Your task to perform on an android device: Open maps Image 0: 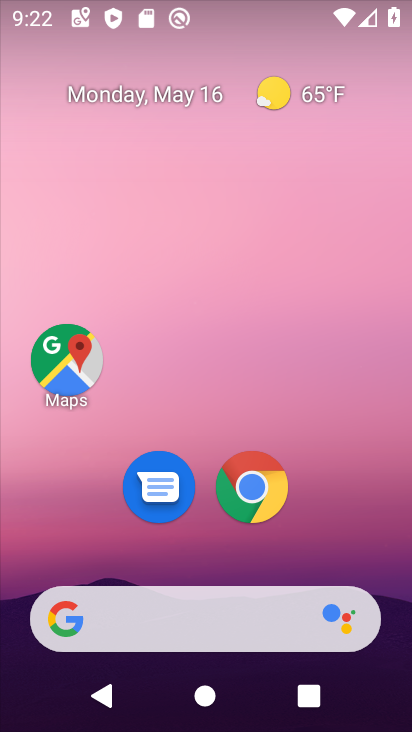
Step 0: drag from (376, 556) to (351, 191)
Your task to perform on an android device: Open maps Image 1: 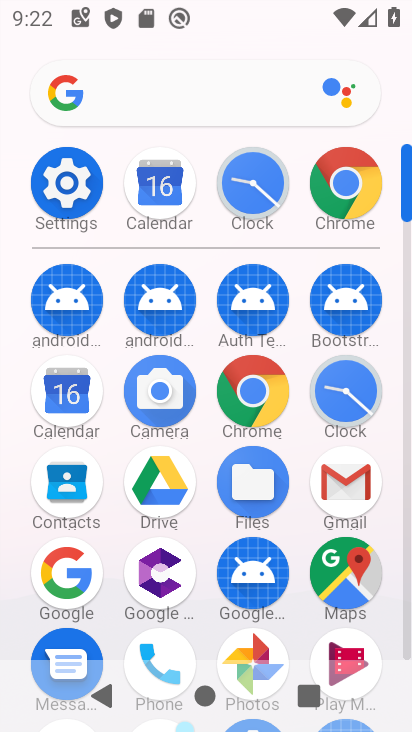
Step 1: click (369, 584)
Your task to perform on an android device: Open maps Image 2: 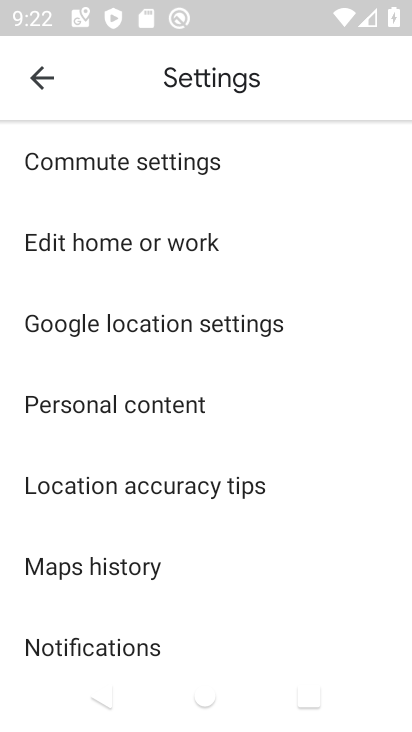
Step 2: task complete